Your task to perform on an android device: Toggle the flashlight Image 0: 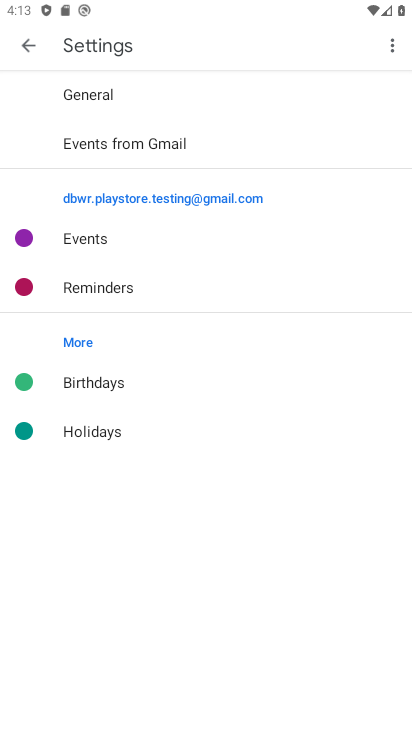
Step 0: press home button
Your task to perform on an android device: Toggle the flashlight Image 1: 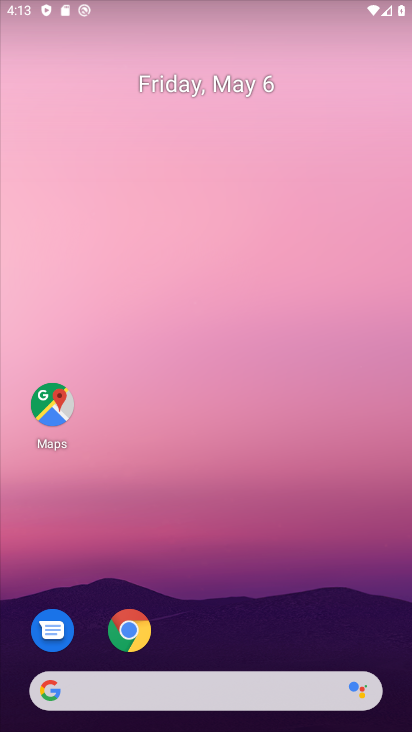
Step 1: task complete